Your task to perform on an android device: open app "Google Sheets" (install if not already installed) Image 0: 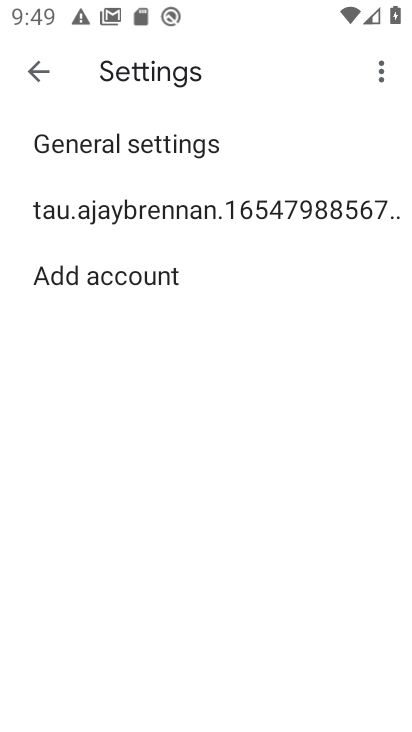
Step 0: press home button
Your task to perform on an android device: open app "Google Sheets" (install if not already installed) Image 1: 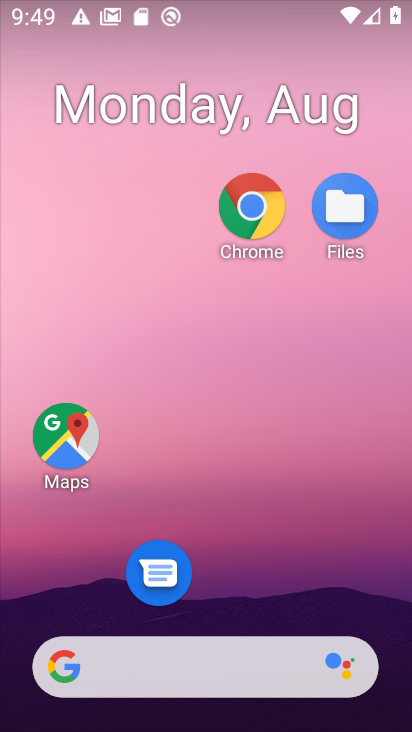
Step 1: drag from (245, 623) to (123, 77)
Your task to perform on an android device: open app "Google Sheets" (install if not already installed) Image 2: 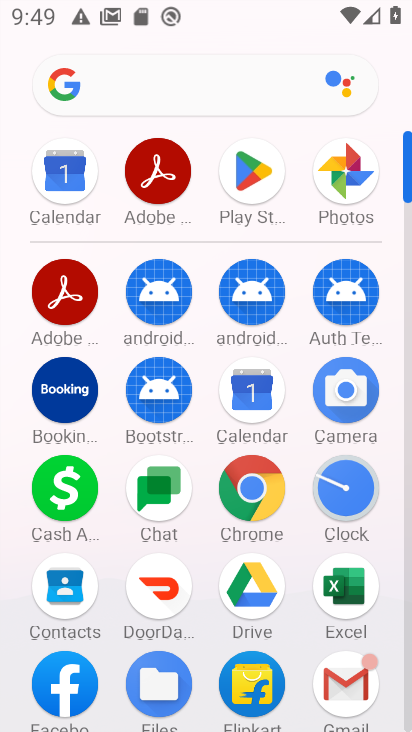
Step 2: click (260, 167)
Your task to perform on an android device: open app "Google Sheets" (install if not already installed) Image 3: 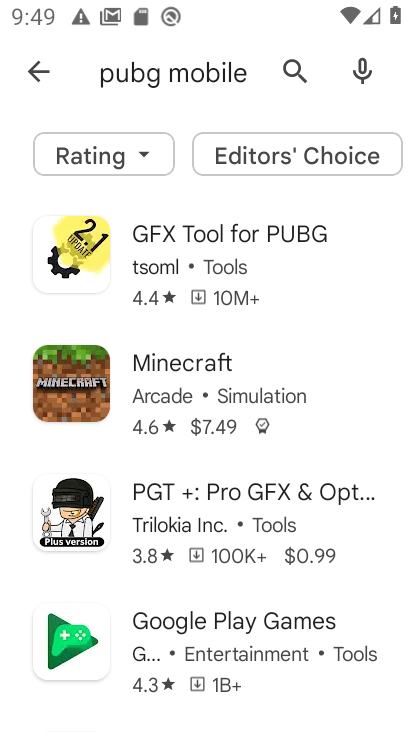
Step 3: click (292, 78)
Your task to perform on an android device: open app "Google Sheets" (install if not already installed) Image 4: 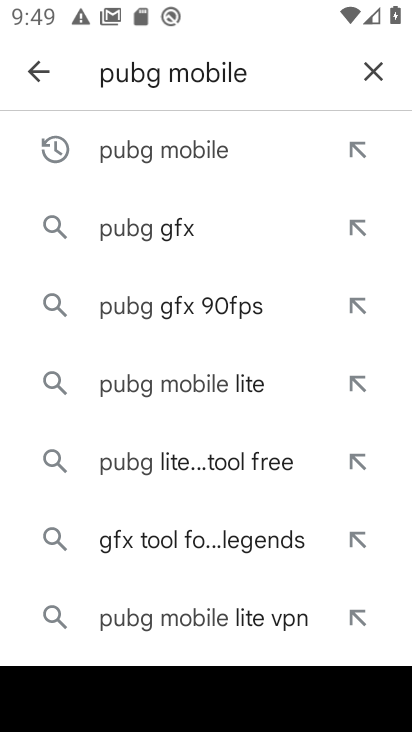
Step 4: click (371, 71)
Your task to perform on an android device: open app "Google Sheets" (install if not already installed) Image 5: 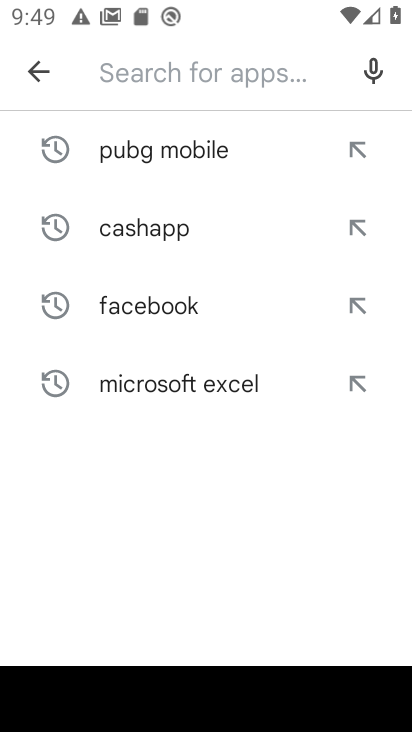
Step 5: type "google sheet"
Your task to perform on an android device: open app "Google Sheets" (install if not already installed) Image 6: 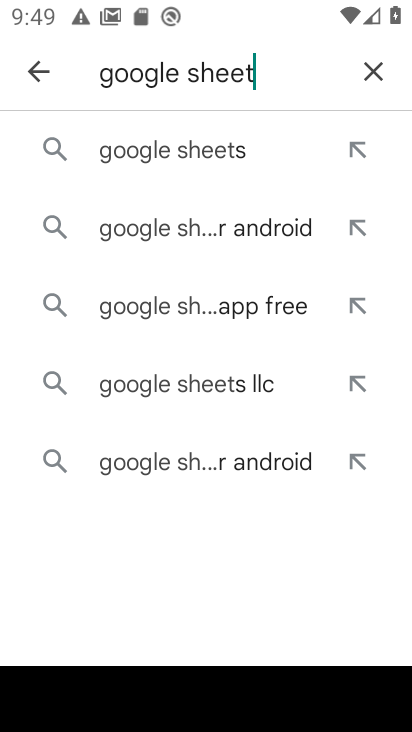
Step 6: click (173, 153)
Your task to perform on an android device: open app "Google Sheets" (install if not already installed) Image 7: 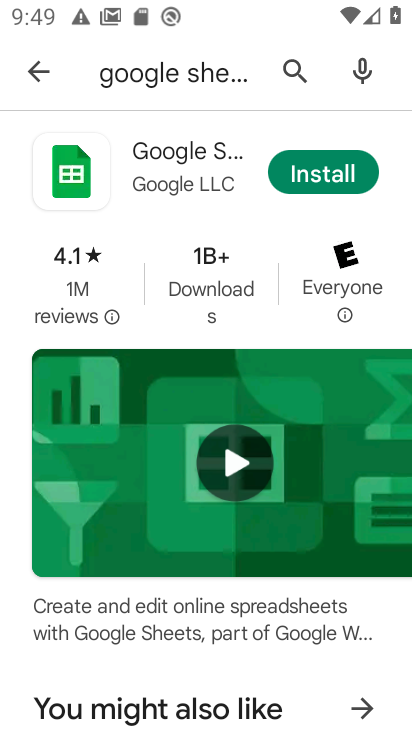
Step 7: click (310, 167)
Your task to perform on an android device: open app "Google Sheets" (install if not already installed) Image 8: 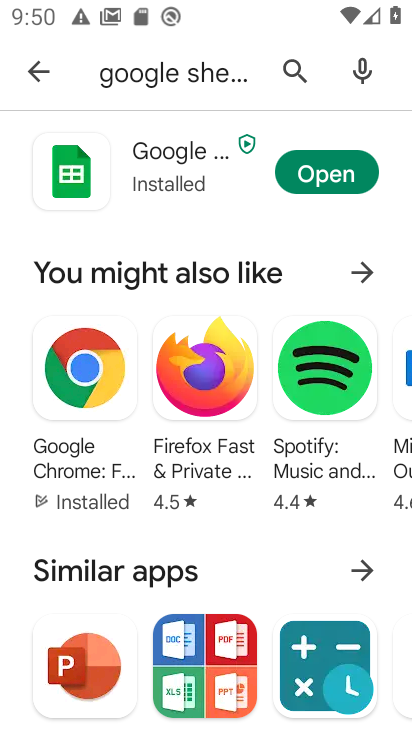
Step 8: task complete